Your task to perform on an android device: check android version Image 0: 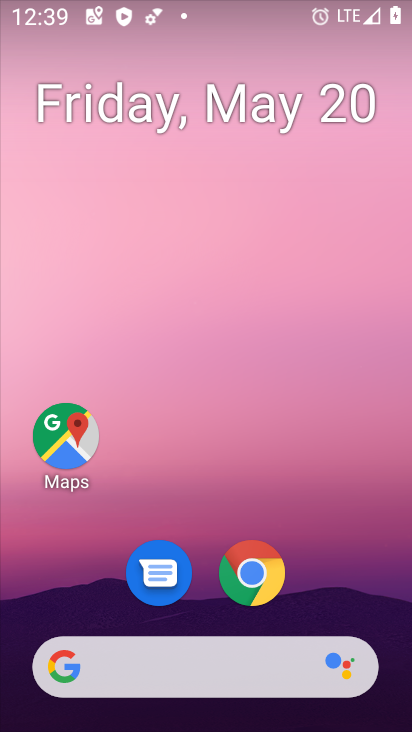
Step 0: drag from (348, 564) to (322, 102)
Your task to perform on an android device: check android version Image 1: 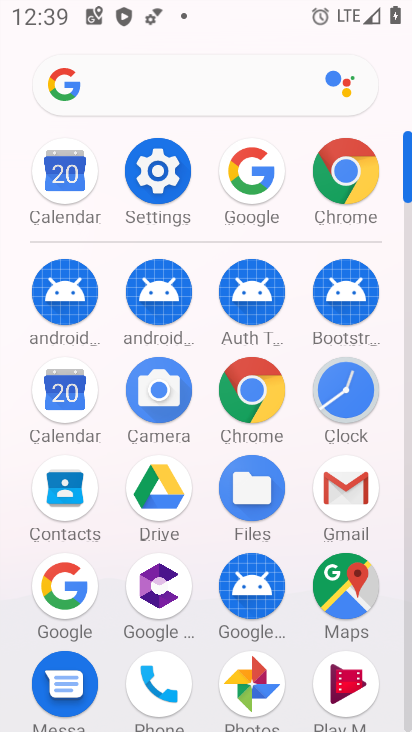
Step 1: click (161, 171)
Your task to perform on an android device: check android version Image 2: 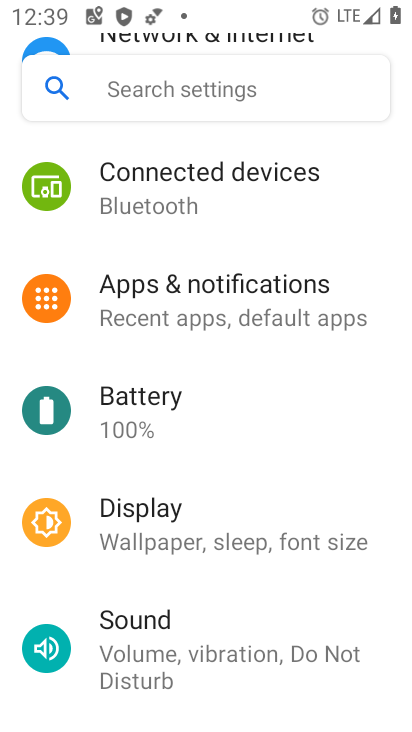
Step 2: drag from (276, 605) to (313, 38)
Your task to perform on an android device: check android version Image 3: 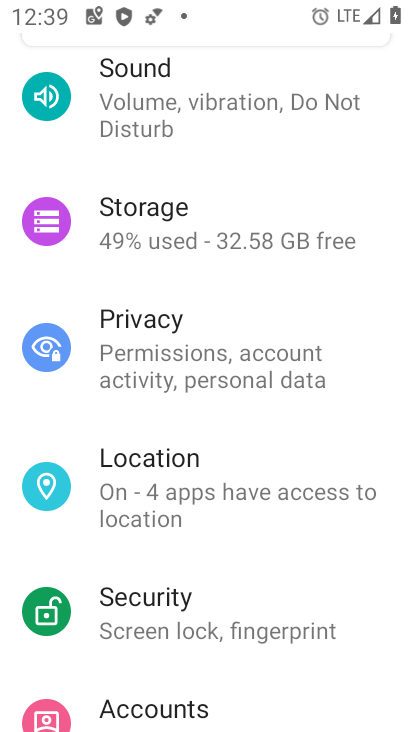
Step 3: drag from (239, 635) to (260, 47)
Your task to perform on an android device: check android version Image 4: 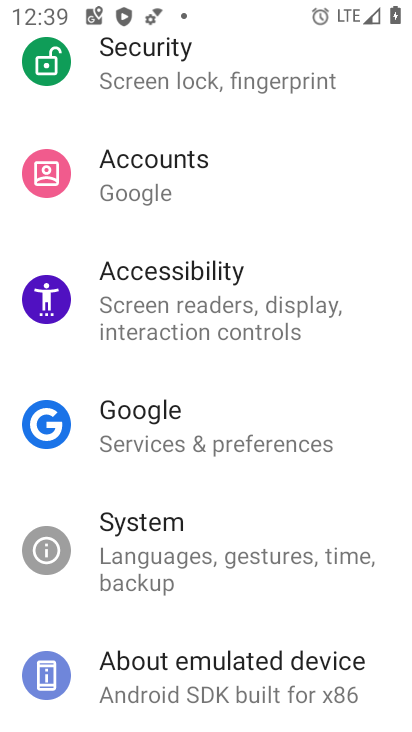
Step 4: drag from (228, 657) to (206, 139)
Your task to perform on an android device: check android version Image 5: 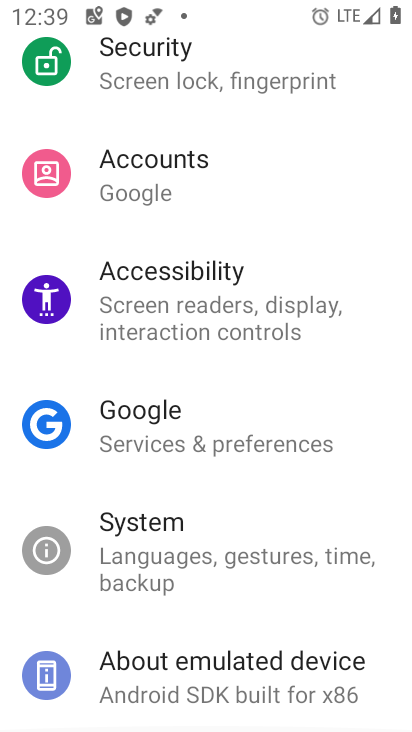
Step 5: click (169, 679)
Your task to perform on an android device: check android version Image 6: 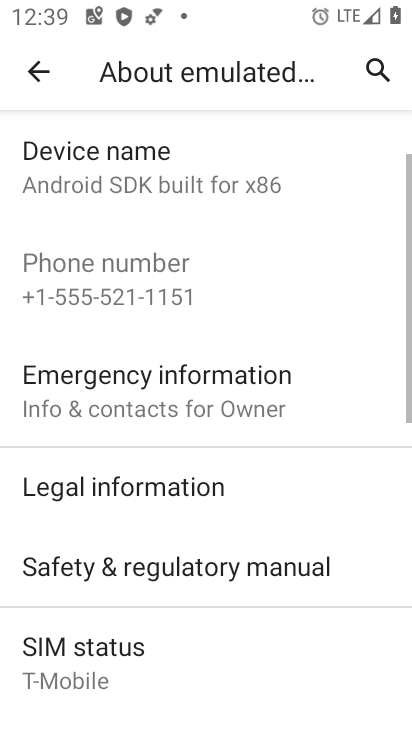
Step 6: drag from (234, 604) to (256, 133)
Your task to perform on an android device: check android version Image 7: 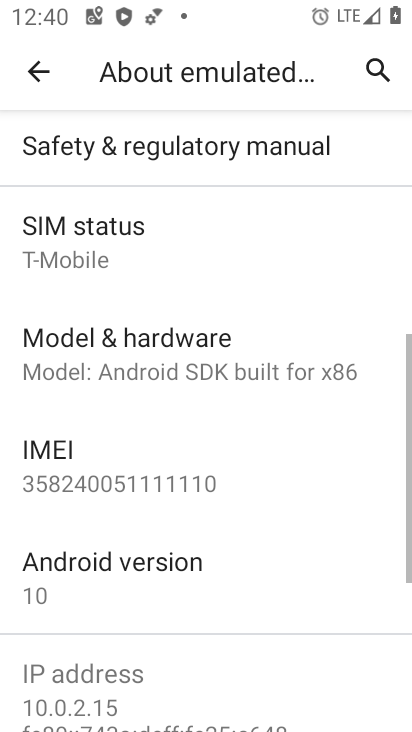
Step 7: drag from (254, 527) to (263, 140)
Your task to perform on an android device: check android version Image 8: 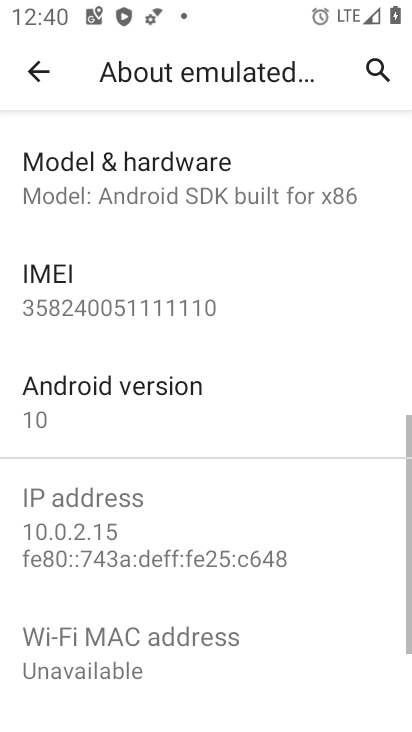
Step 8: click (93, 396)
Your task to perform on an android device: check android version Image 9: 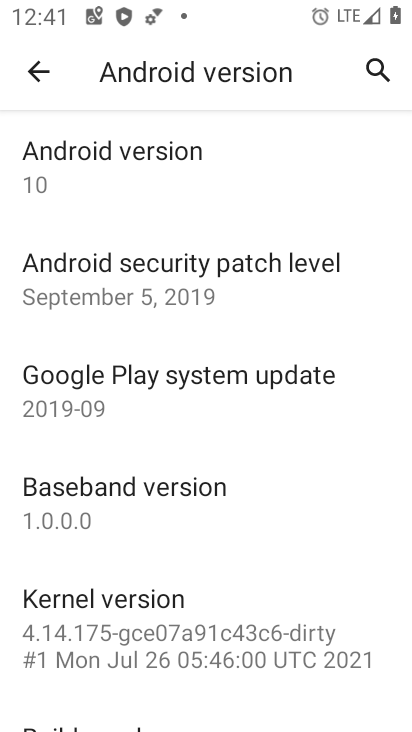
Step 9: task complete